Your task to perform on an android device: turn on location history Image 0: 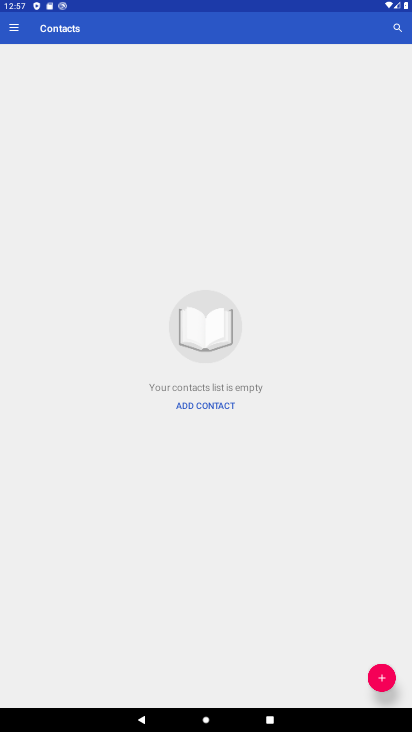
Step 0: press home button
Your task to perform on an android device: turn on location history Image 1: 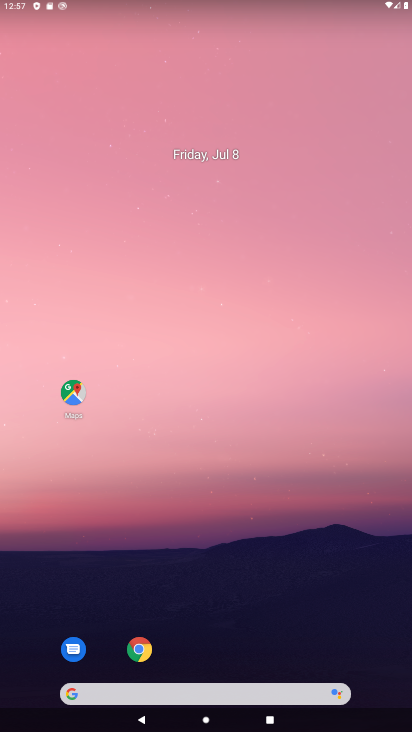
Step 1: drag from (246, 309) to (214, 108)
Your task to perform on an android device: turn on location history Image 2: 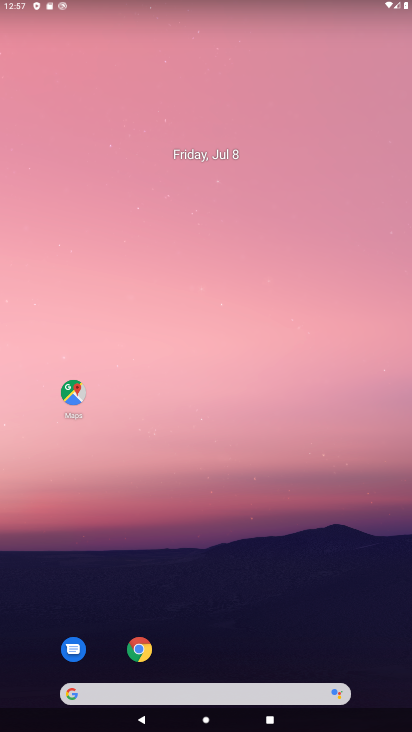
Step 2: drag from (341, 575) to (336, 140)
Your task to perform on an android device: turn on location history Image 3: 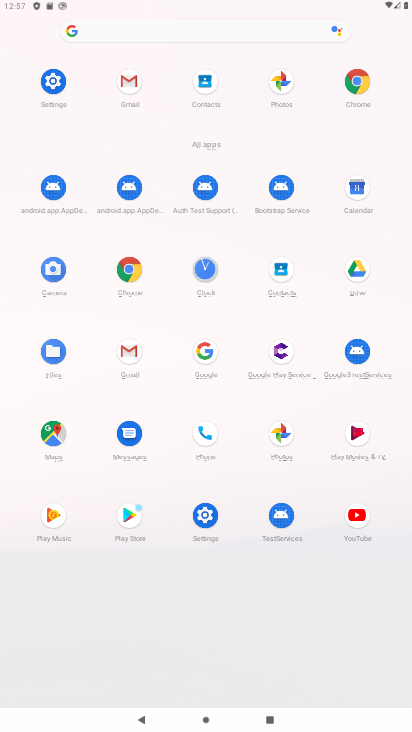
Step 3: click (54, 95)
Your task to perform on an android device: turn on location history Image 4: 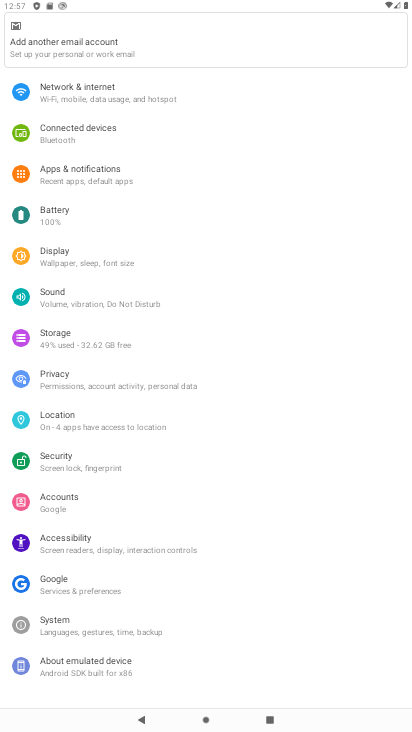
Step 4: click (84, 429)
Your task to perform on an android device: turn on location history Image 5: 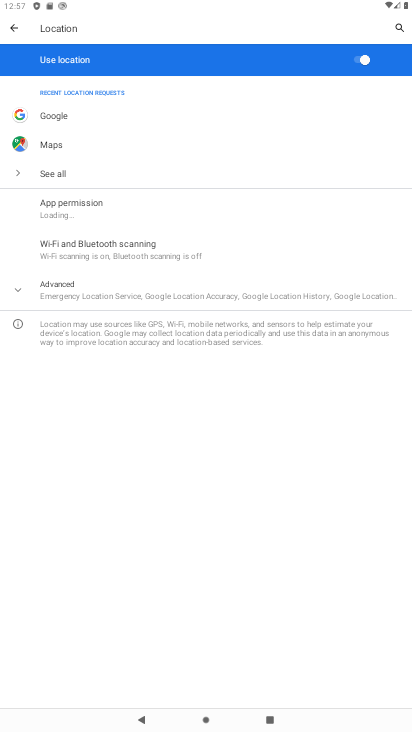
Step 5: click (96, 292)
Your task to perform on an android device: turn on location history Image 6: 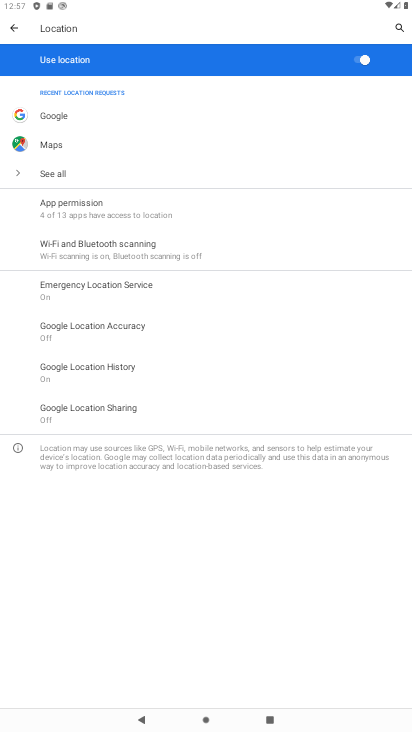
Step 6: click (108, 372)
Your task to perform on an android device: turn on location history Image 7: 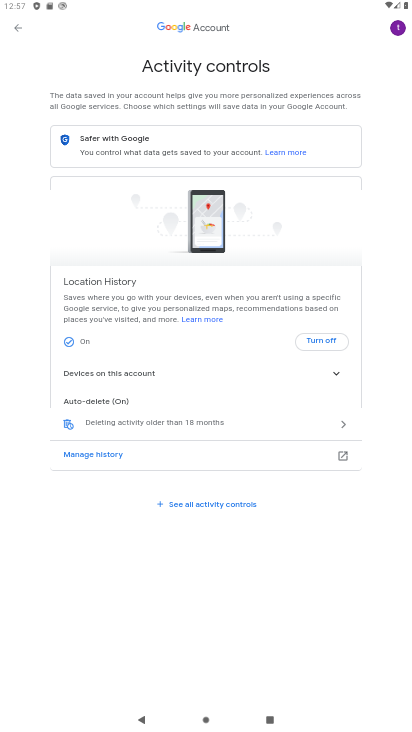
Step 7: task complete